Your task to perform on an android device: Go to Google Image 0: 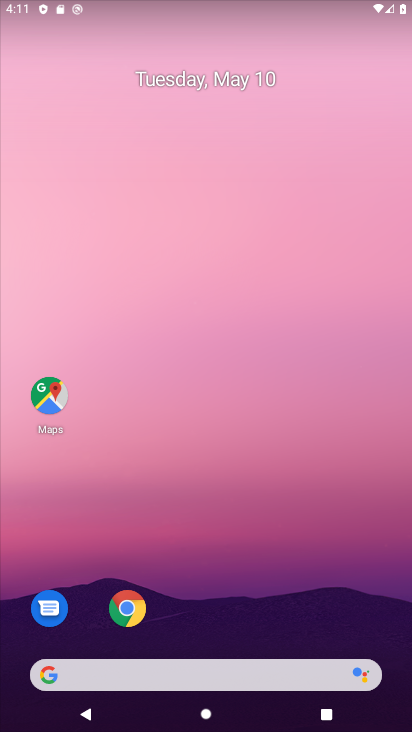
Step 0: drag from (273, 681) to (100, 72)
Your task to perform on an android device: Go to Google Image 1: 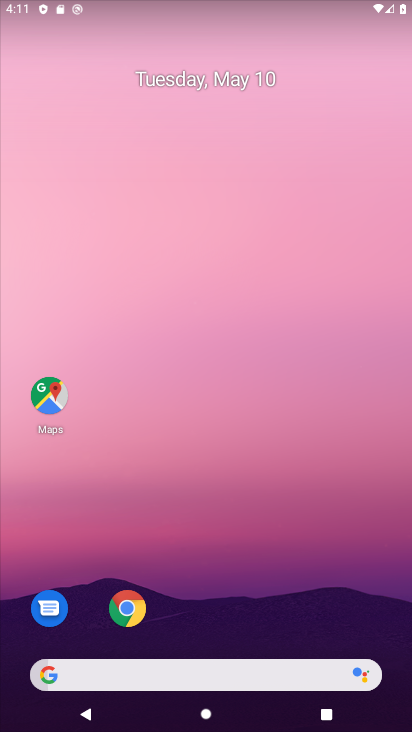
Step 1: drag from (262, 495) to (135, 91)
Your task to perform on an android device: Go to Google Image 2: 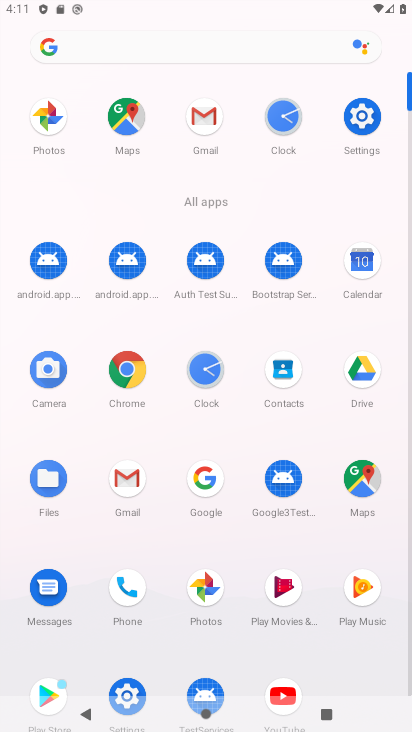
Step 2: drag from (256, 521) to (103, 9)
Your task to perform on an android device: Go to Google Image 3: 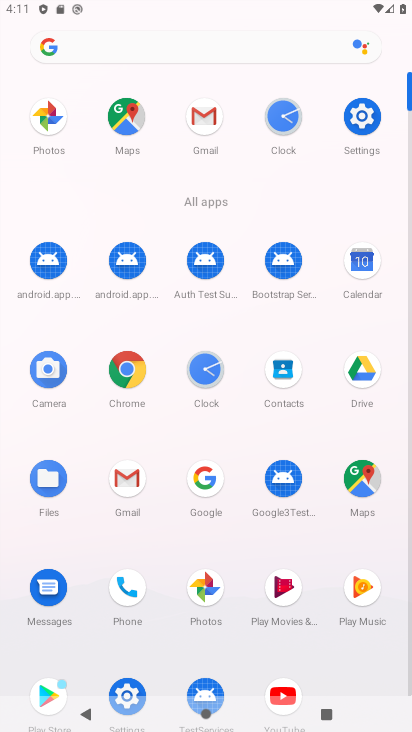
Step 3: click (209, 485)
Your task to perform on an android device: Go to Google Image 4: 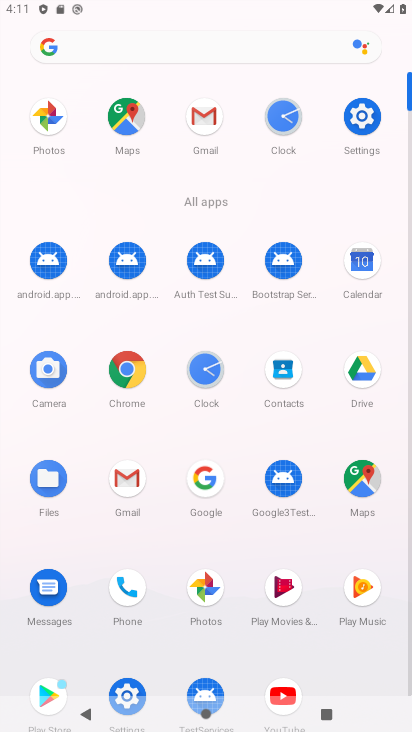
Step 4: click (209, 485)
Your task to perform on an android device: Go to Google Image 5: 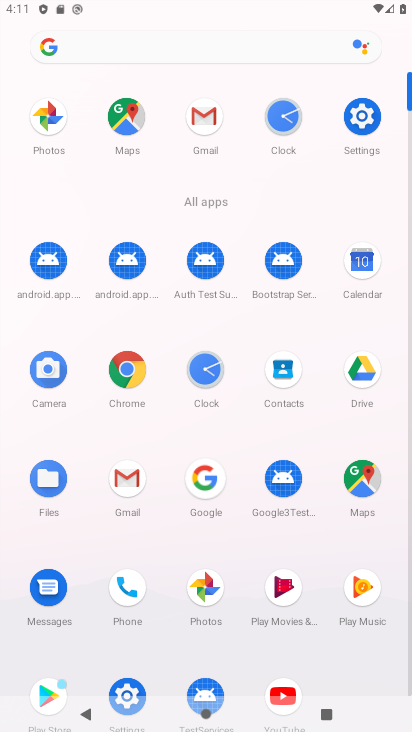
Step 5: click (209, 485)
Your task to perform on an android device: Go to Google Image 6: 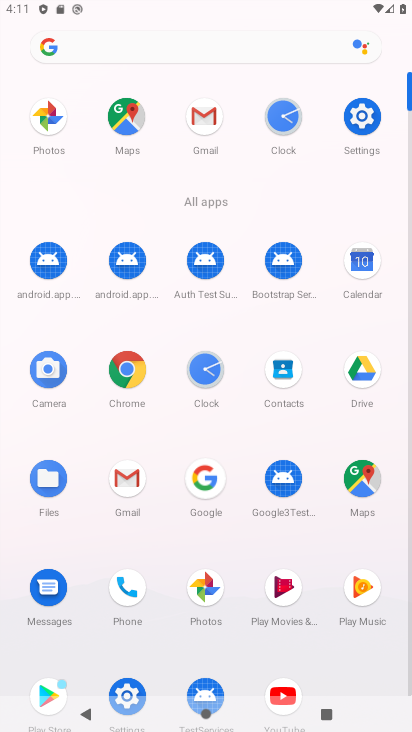
Step 6: click (209, 481)
Your task to perform on an android device: Go to Google Image 7: 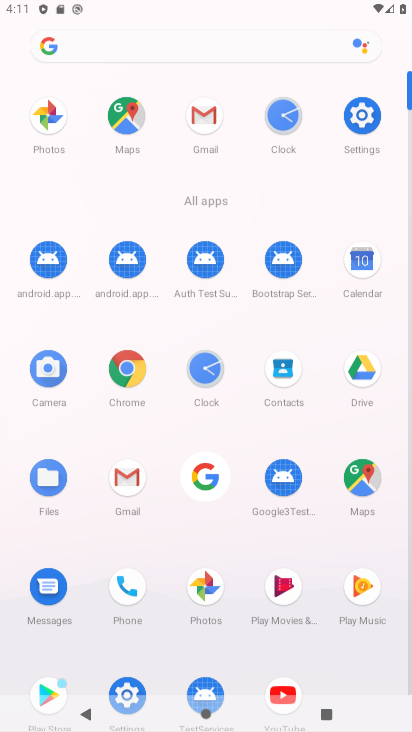
Step 7: click (208, 482)
Your task to perform on an android device: Go to Google Image 8: 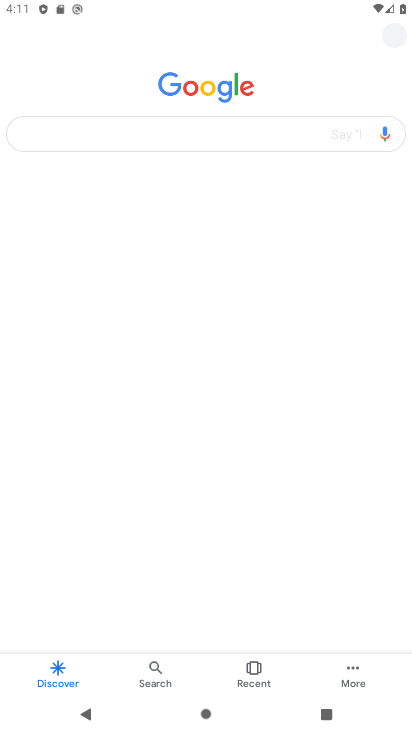
Step 8: click (209, 481)
Your task to perform on an android device: Go to Google Image 9: 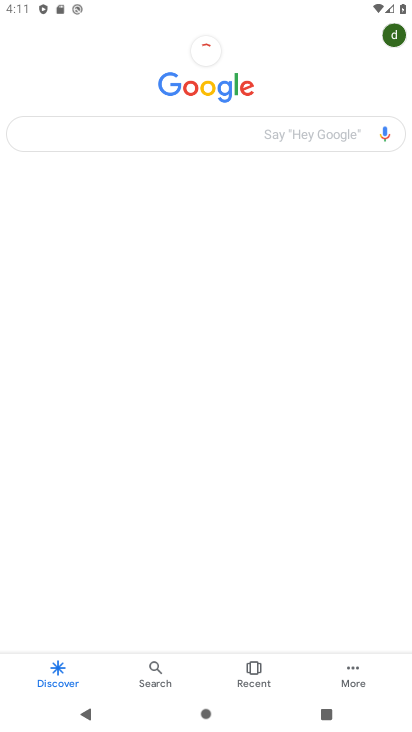
Step 9: task complete